Your task to perform on an android device: change the clock style Image 0: 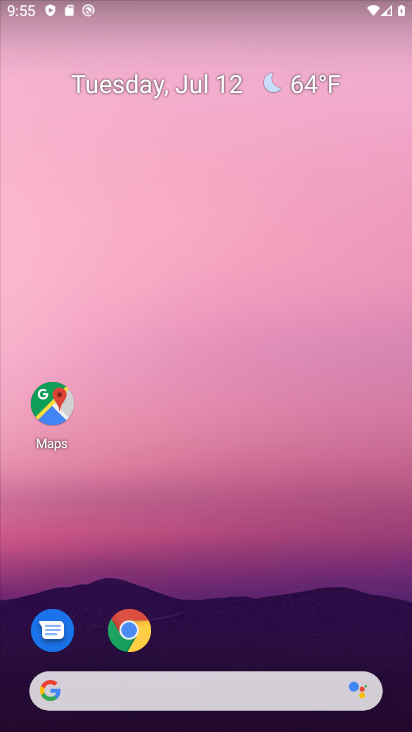
Step 0: drag from (272, 623) to (255, 12)
Your task to perform on an android device: change the clock style Image 1: 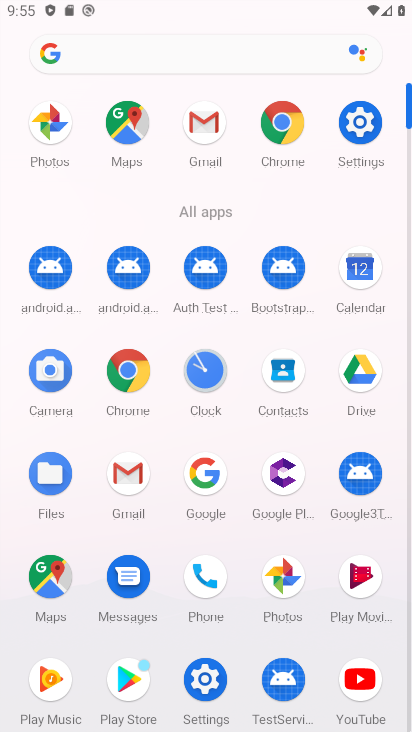
Step 1: click (208, 375)
Your task to perform on an android device: change the clock style Image 2: 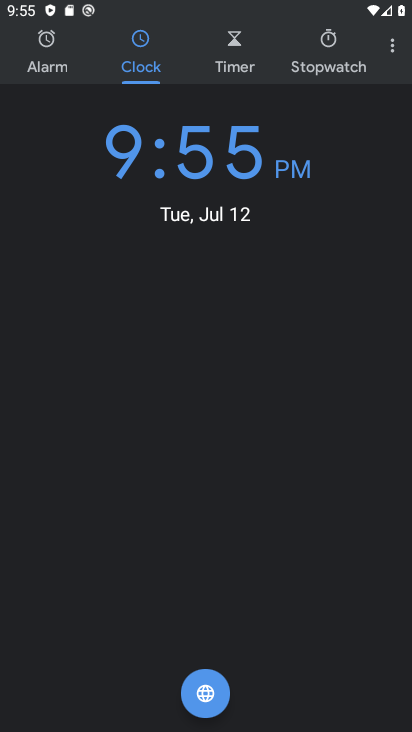
Step 2: click (386, 39)
Your task to perform on an android device: change the clock style Image 3: 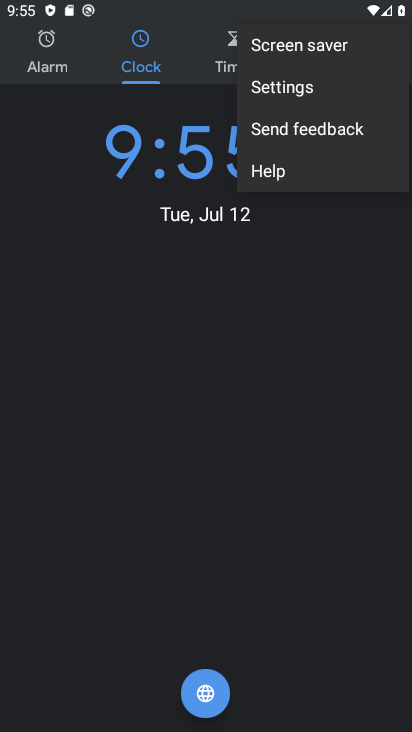
Step 3: click (298, 95)
Your task to perform on an android device: change the clock style Image 4: 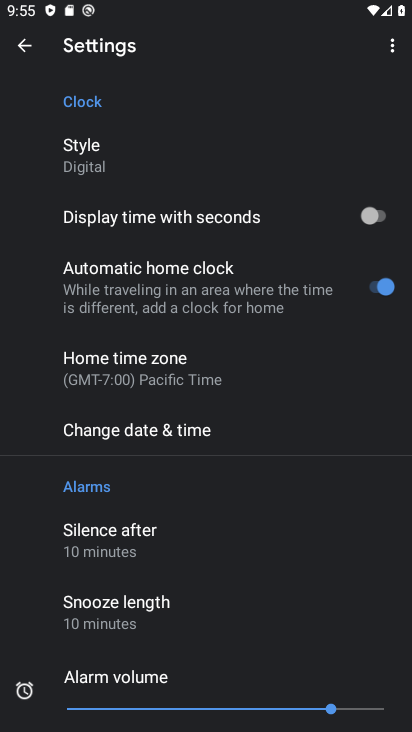
Step 4: click (73, 170)
Your task to perform on an android device: change the clock style Image 5: 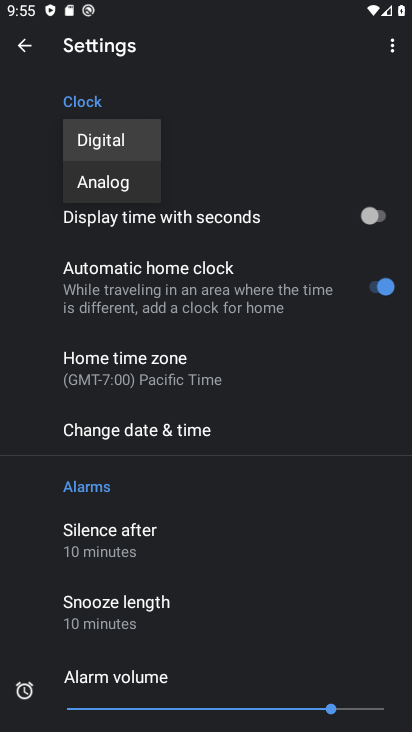
Step 5: click (91, 185)
Your task to perform on an android device: change the clock style Image 6: 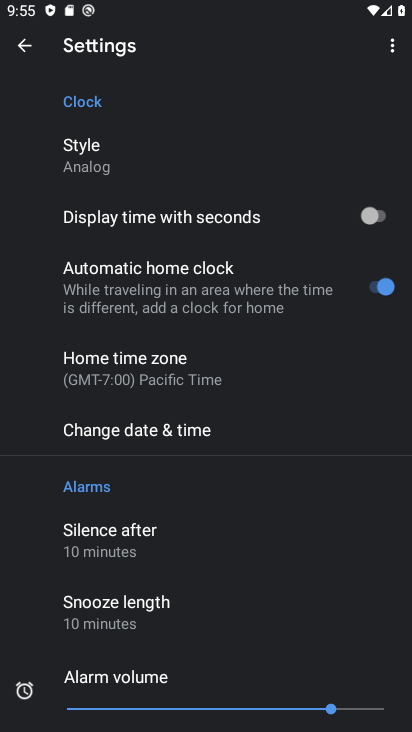
Step 6: task complete